Your task to perform on an android device: Check the news Image 0: 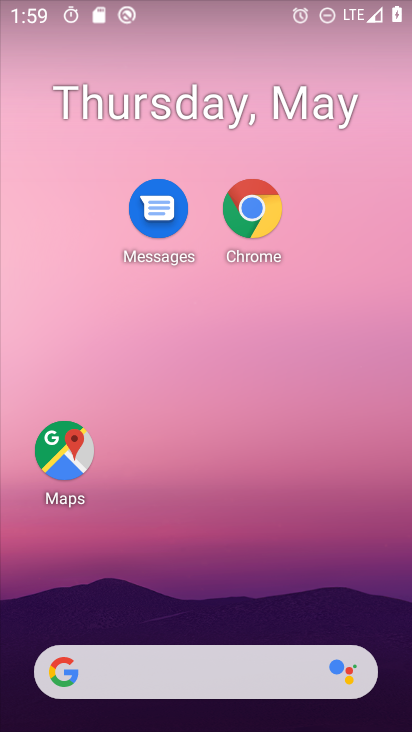
Step 0: click (170, 685)
Your task to perform on an android device: Check the news Image 1: 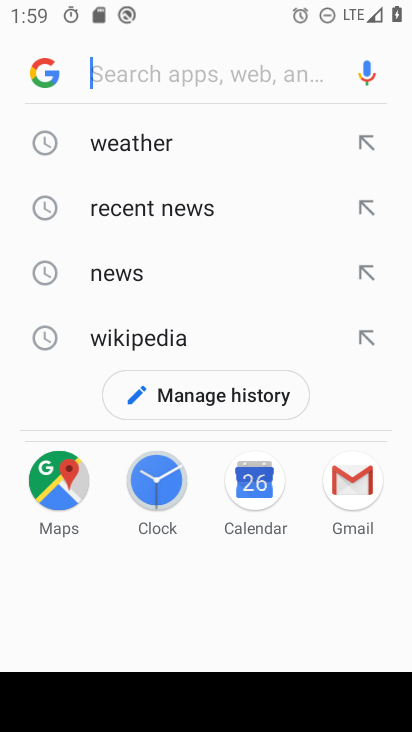
Step 1: click (245, 674)
Your task to perform on an android device: Check the news Image 2: 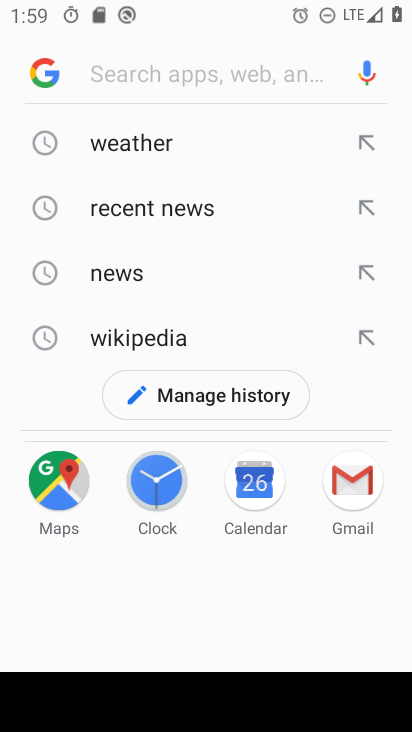
Step 2: click (136, 268)
Your task to perform on an android device: Check the news Image 3: 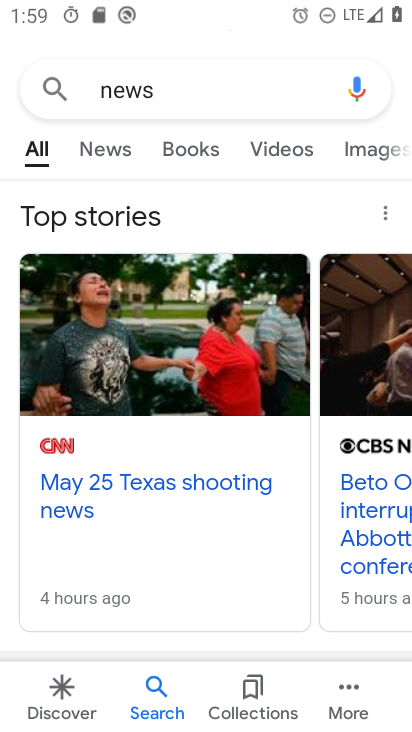
Step 3: task complete